Your task to perform on an android device: turn on notifications settings in the gmail app Image 0: 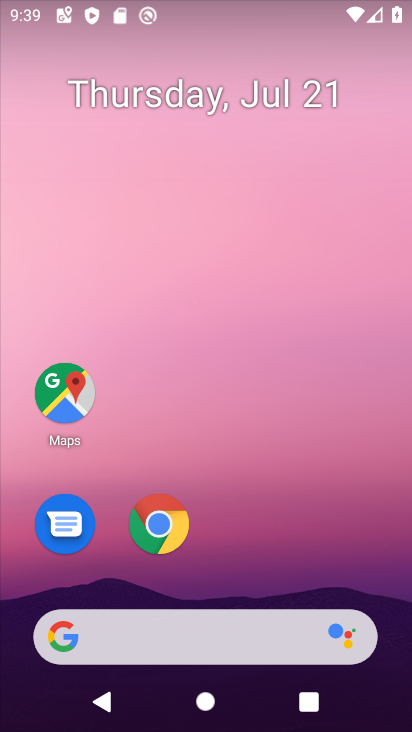
Step 0: press home button
Your task to perform on an android device: turn on notifications settings in the gmail app Image 1: 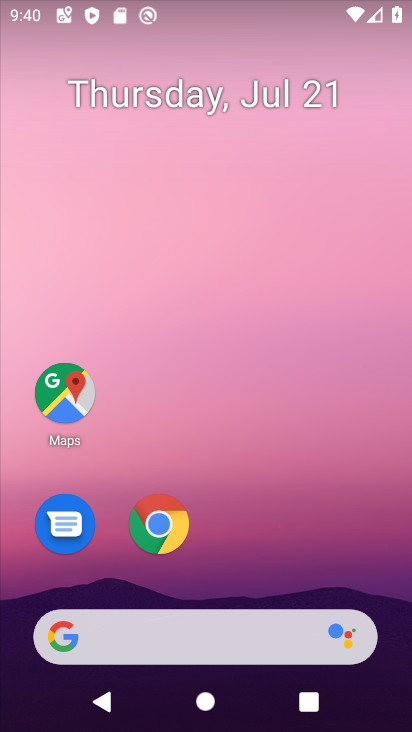
Step 1: drag from (147, 632) to (347, 167)
Your task to perform on an android device: turn on notifications settings in the gmail app Image 2: 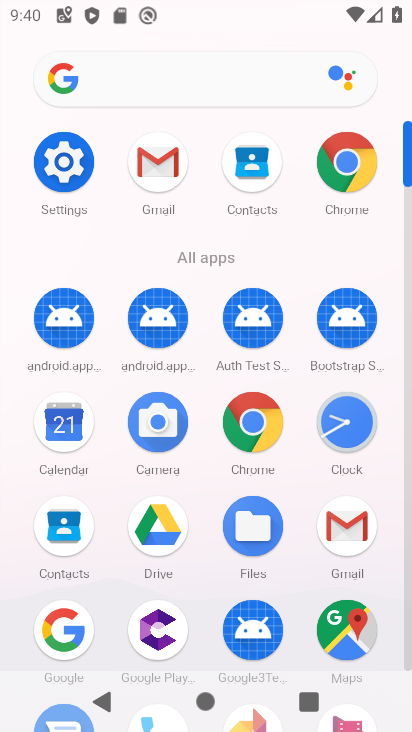
Step 2: click (154, 172)
Your task to perform on an android device: turn on notifications settings in the gmail app Image 3: 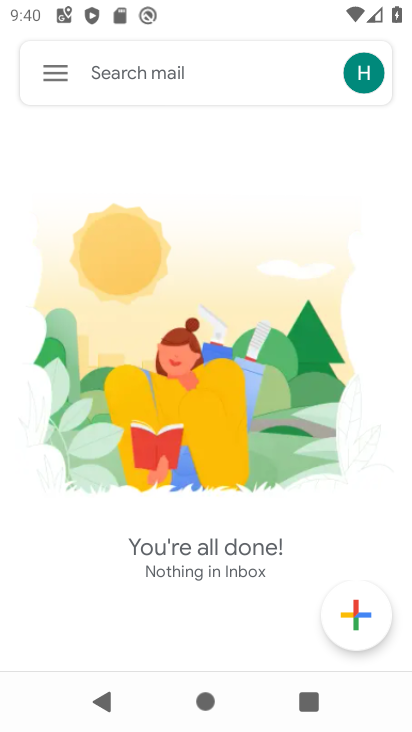
Step 3: click (53, 73)
Your task to perform on an android device: turn on notifications settings in the gmail app Image 4: 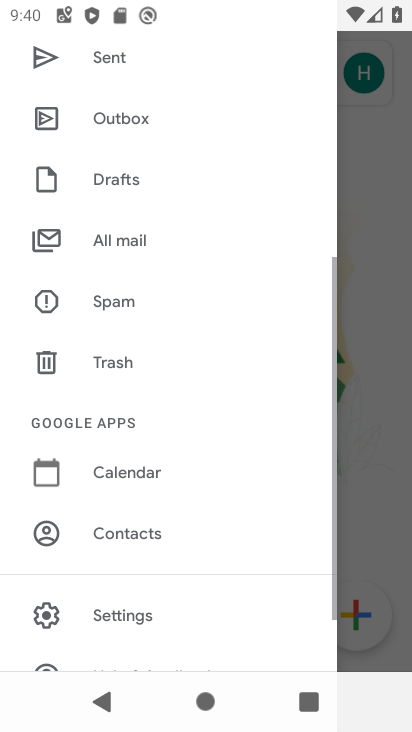
Step 4: drag from (166, 635) to (211, 342)
Your task to perform on an android device: turn on notifications settings in the gmail app Image 5: 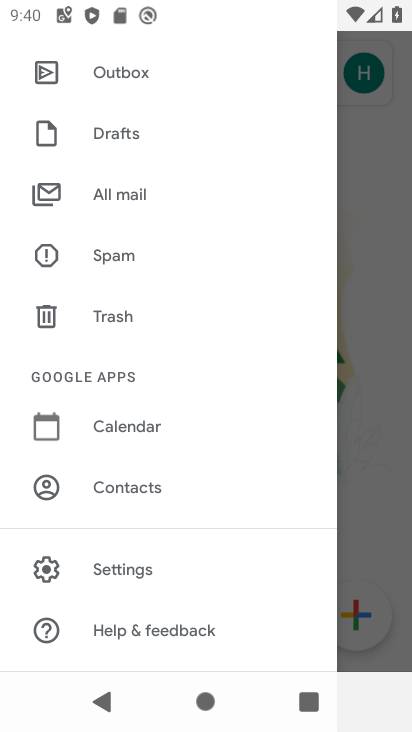
Step 5: click (130, 566)
Your task to perform on an android device: turn on notifications settings in the gmail app Image 6: 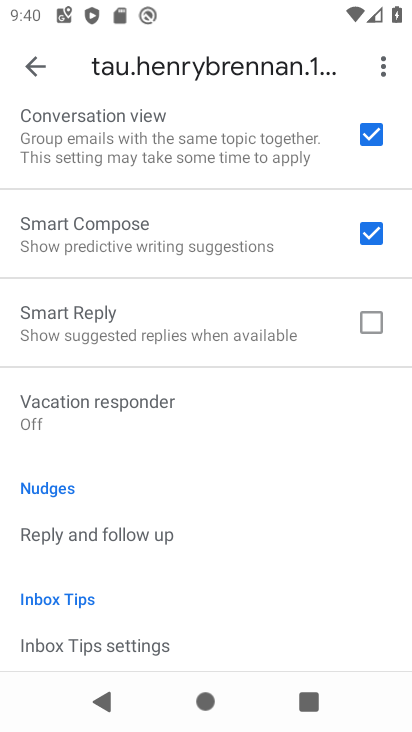
Step 6: drag from (283, 106) to (254, 643)
Your task to perform on an android device: turn on notifications settings in the gmail app Image 7: 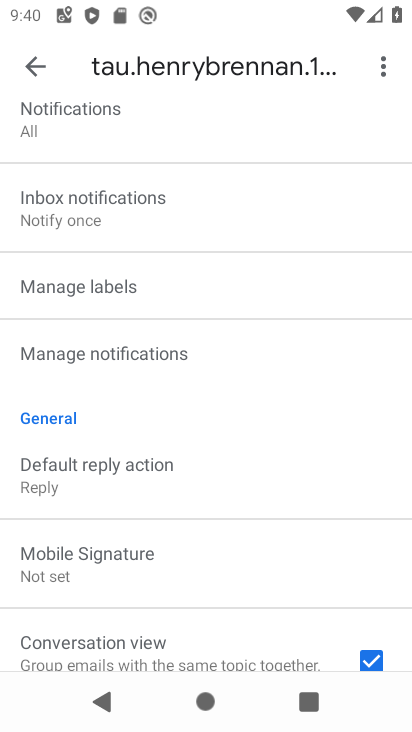
Step 7: click (90, 120)
Your task to perform on an android device: turn on notifications settings in the gmail app Image 8: 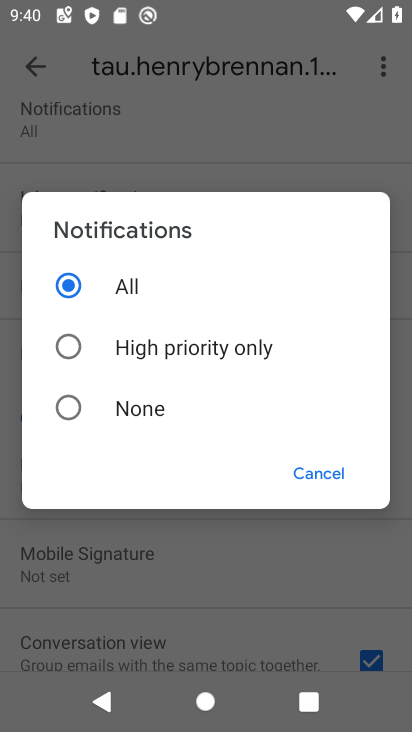
Step 8: task complete